Your task to perform on an android device: add a label to a message in the gmail app Image 0: 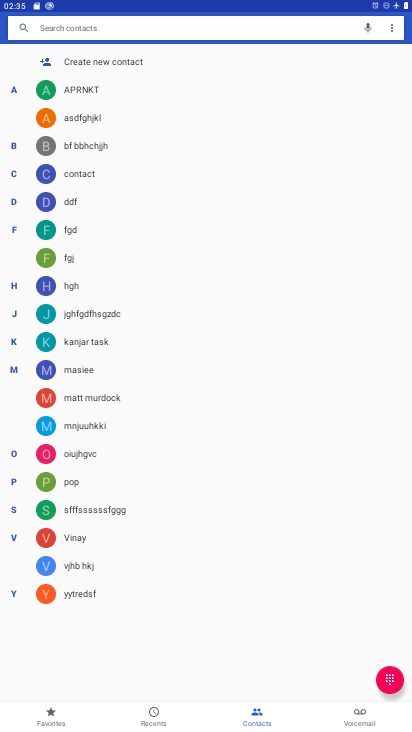
Step 0: press home button
Your task to perform on an android device: add a label to a message in the gmail app Image 1: 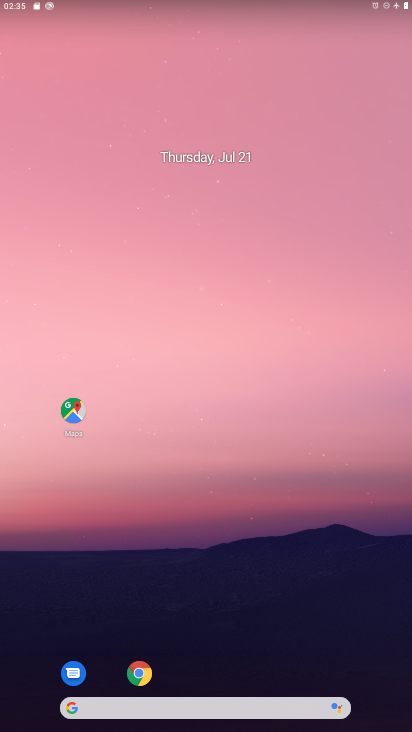
Step 1: drag from (236, 666) to (227, 473)
Your task to perform on an android device: add a label to a message in the gmail app Image 2: 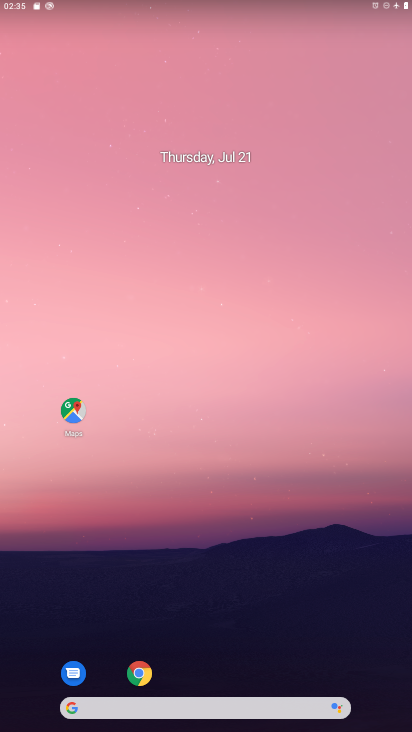
Step 2: drag from (201, 648) to (221, 184)
Your task to perform on an android device: add a label to a message in the gmail app Image 3: 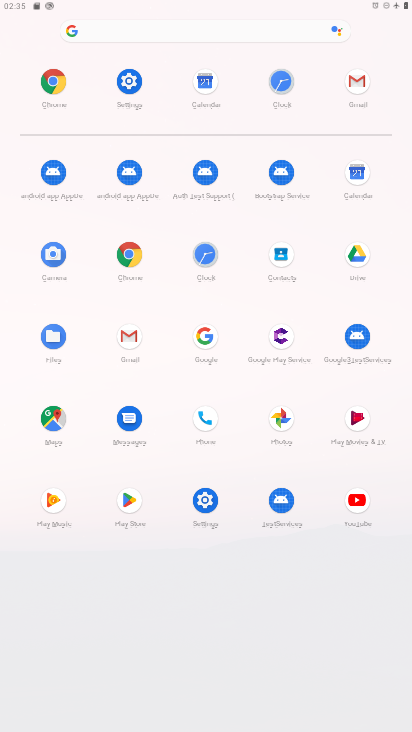
Step 3: click (364, 70)
Your task to perform on an android device: add a label to a message in the gmail app Image 4: 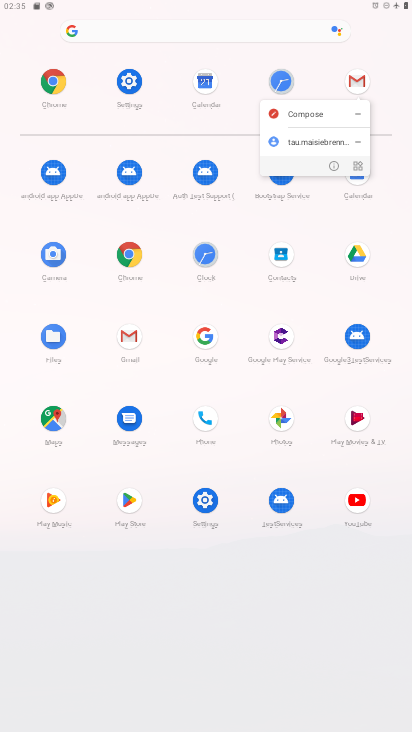
Step 4: click (360, 80)
Your task to perform on an android device: add a label to a message in the gmail app Image 5: 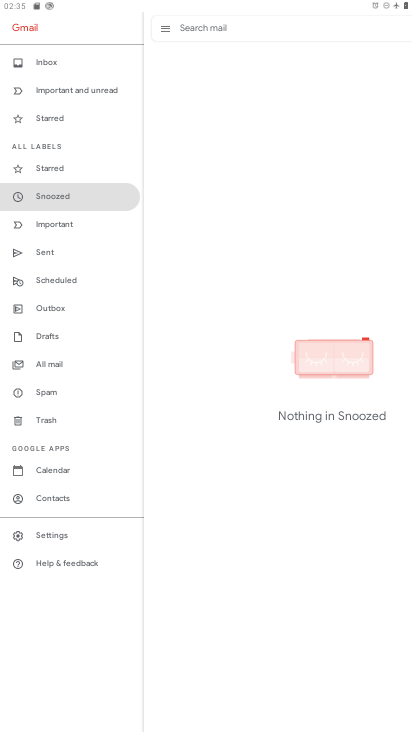
Step 5: click (60, 367)
Your task to perform on an android device: add a label to a message in the gmail app Image 6: 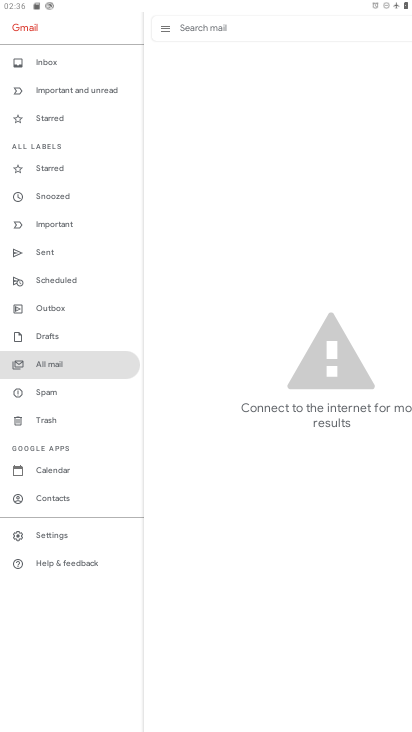
Step 6: task complete